Your task to perform on an android device: When is my next meeting? Image 0: 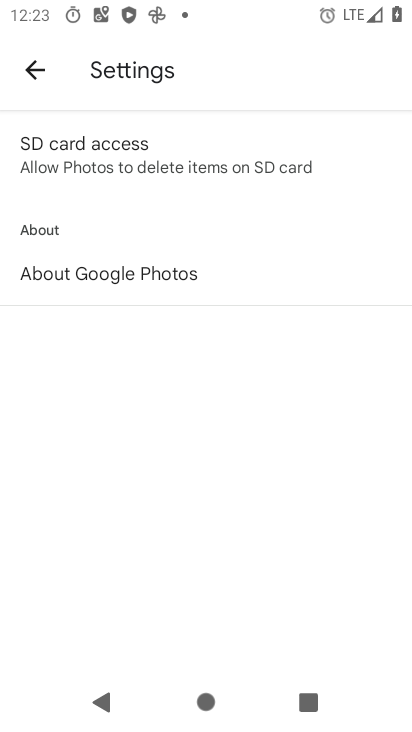
Step 0: press home button
Your task to perform on an android device: When is my next meeting? Image 1: 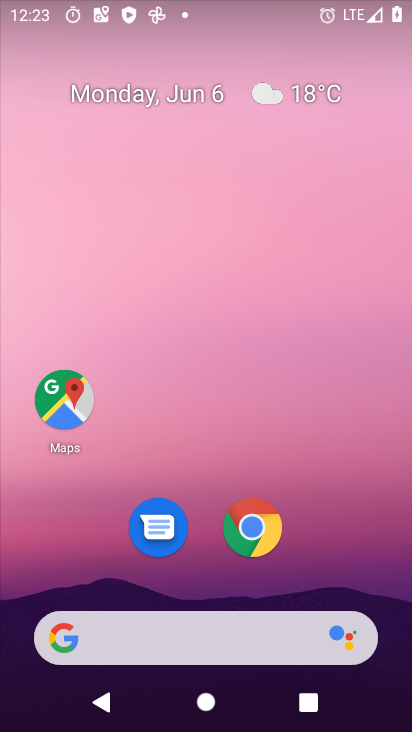
Step 1: click (181, 97)
Your task to perform on an android device: When is my next meeting? Image 2: 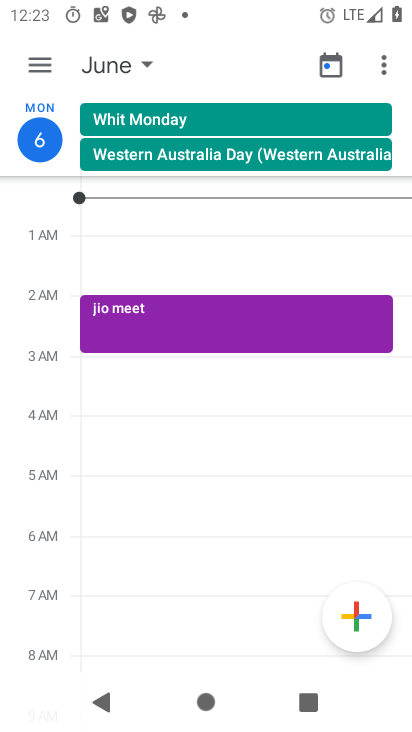
Step 2: drag from (37, 505) to (71, 12)
Your task to perform on an android device: When is my next meeting? Image 3: 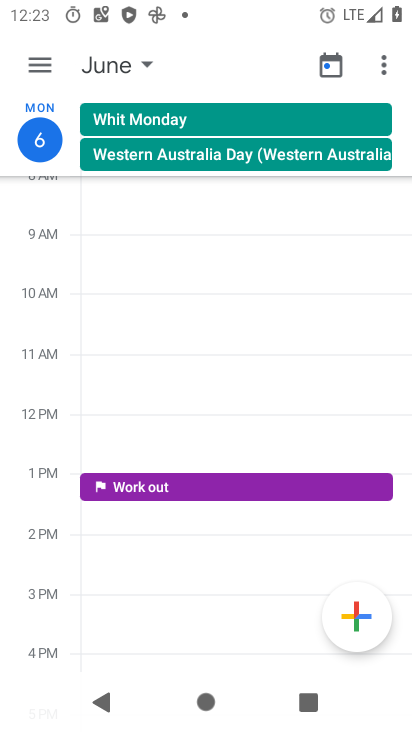
Step 3: click (148, 51)
Your task to perform on an android device: When is my next meeting? Image 4: 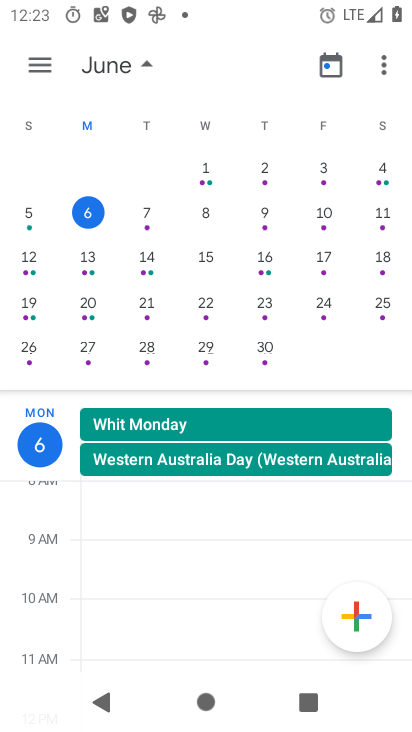
Step 4: click (139, 209)
Your task to perform on an android device: When is my next meeting? Image 5: 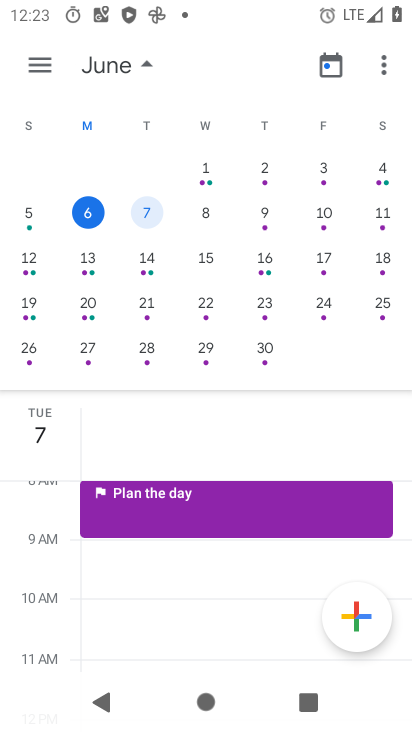
Step 5: click (89, 211)
Your task to perform on an android device: When is my next meeting? Image 6: 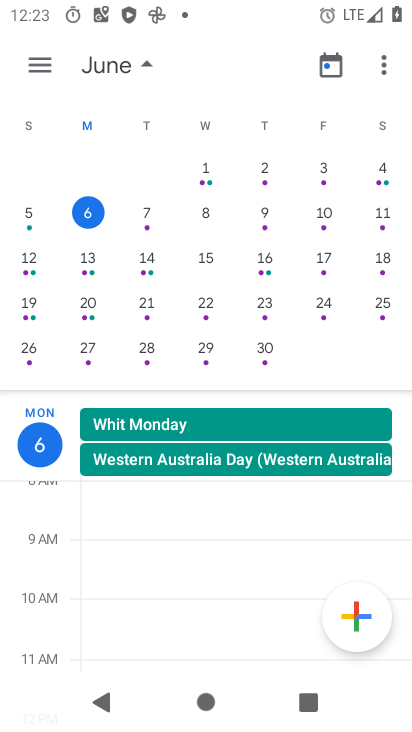
Step 6: task complete